Your task to perform on an android device: Play the last video I watched on Youtube Image 0: 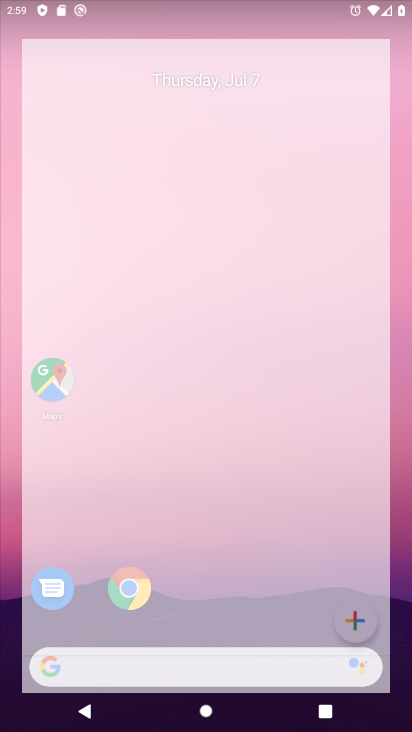
Step 0: drag from (185, 632) to (180, 281)
Your task to perform on an android device: Play the last video I watched on Youtube Image 1: 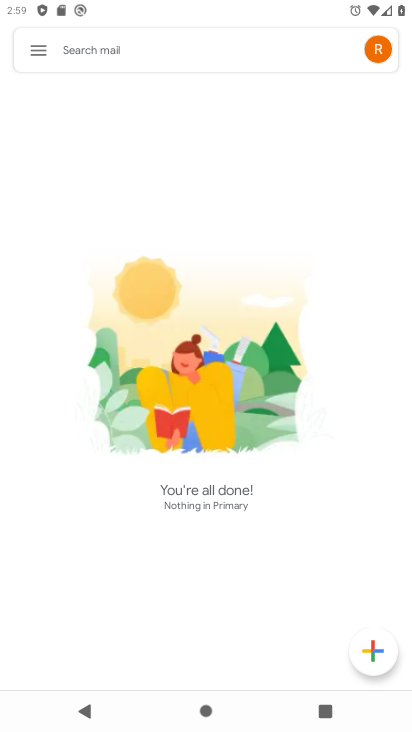
Step 1: press home button
Your task to perform on an android device: Play the last video I watched on Youtube Image 2: 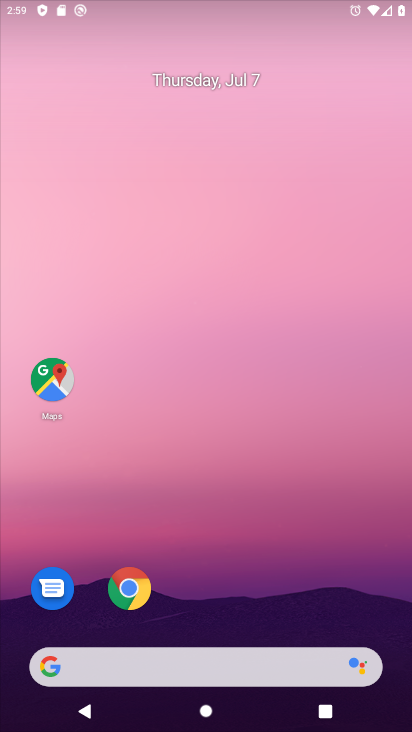
Step 2: drag from (191, 640) to (156, 321)
Your task to perform on an android device: Play the last video I watched on Youtube Image 3: 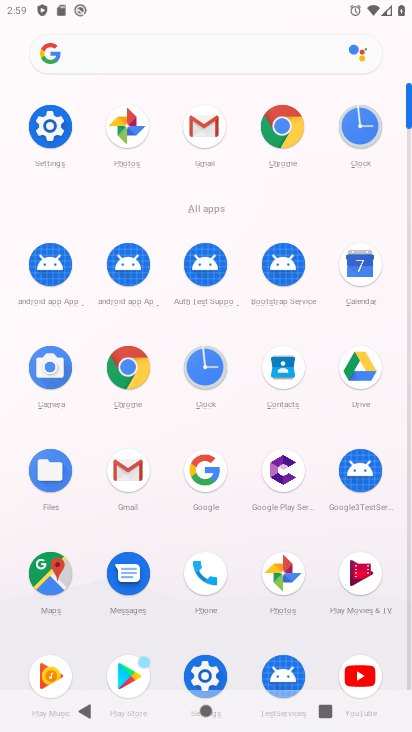
Step 3: click (351, 678)
Your task to perform on an android device: Play the last video I watched on Youtube Image 4: 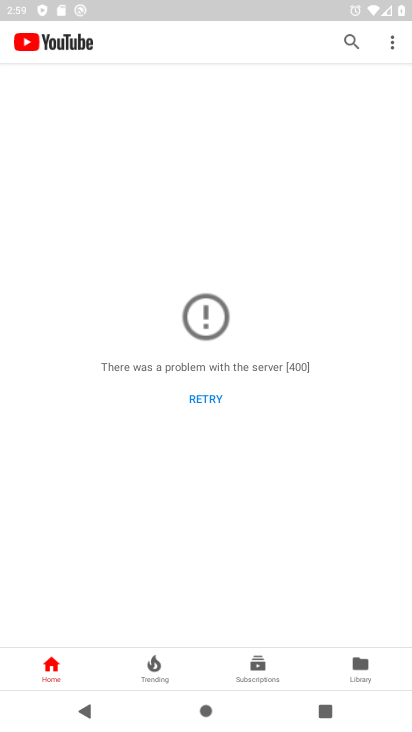
Step 4: click (360, 668)
Your task to perform on an android device: Play the last video I watched on Youtube Image 5: 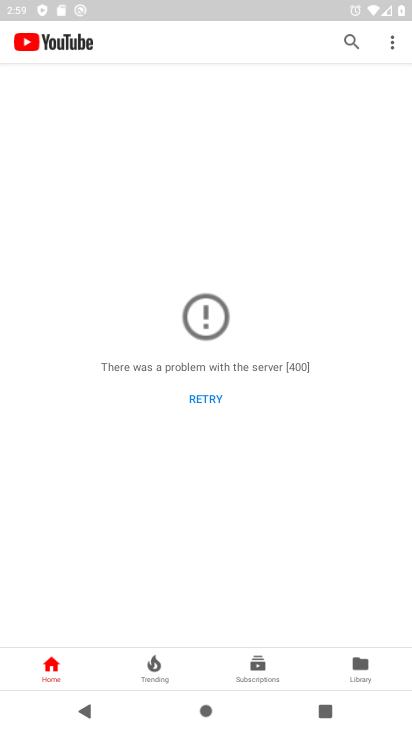
Step 5: task complete